Your task to perform on an android device: open app "Nova Launcher" Image 0: 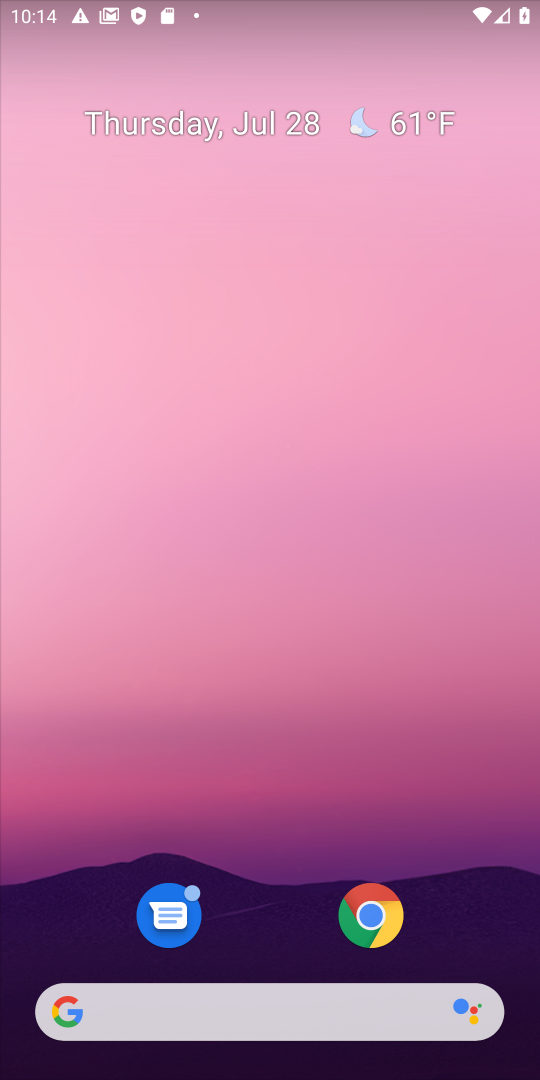
Step 0: press home button
Your task to perform on an android device: open app "Nova Launcher" Image 1: 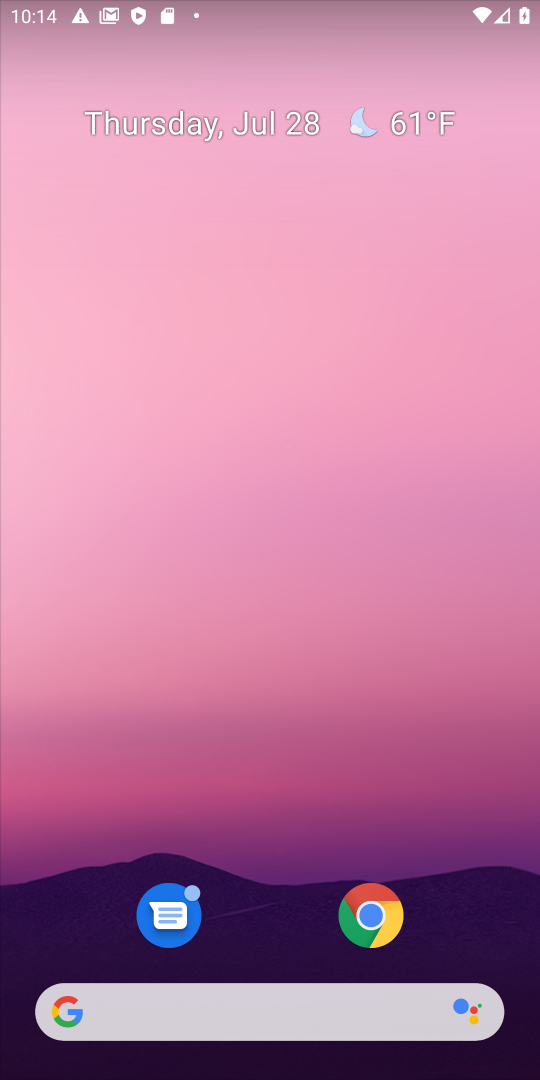
Step 1: drag from (261, 841) to (368, 129)
Your task to perform on an android device: open app "Nova Launcher" Image 2: 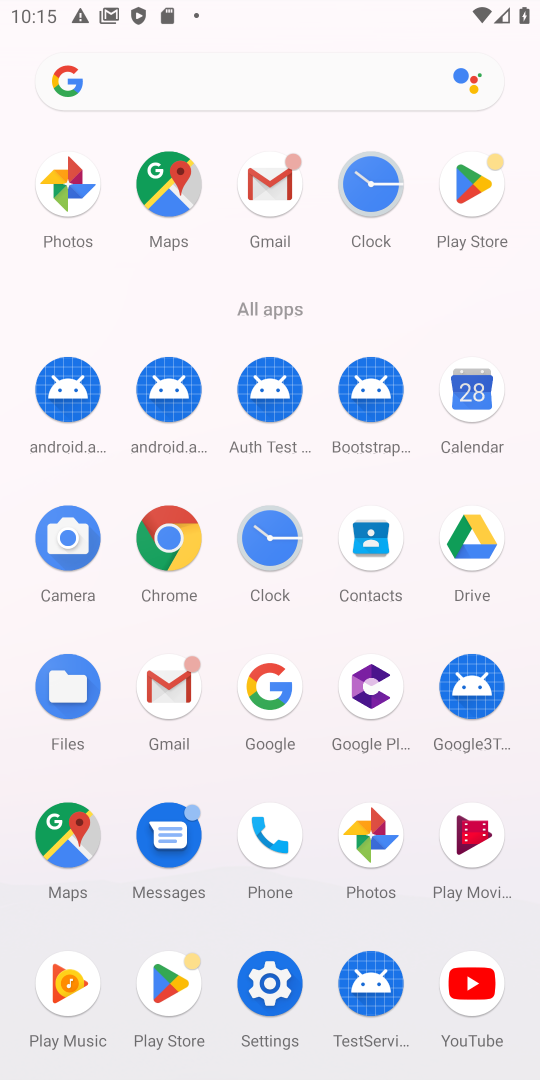
Step 2: click (167, 970)
Your task to perform on an android device: open app "Nova Launcher" Image 3: 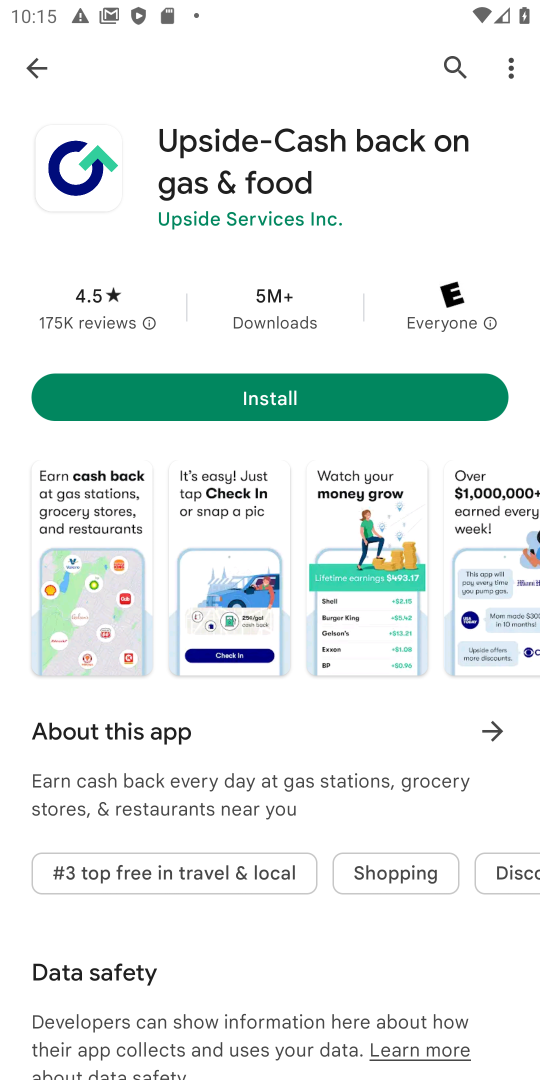
Step 3: click (33, 60)
Your task to perform on an android device: open app "Nova Launcher" Image 4: 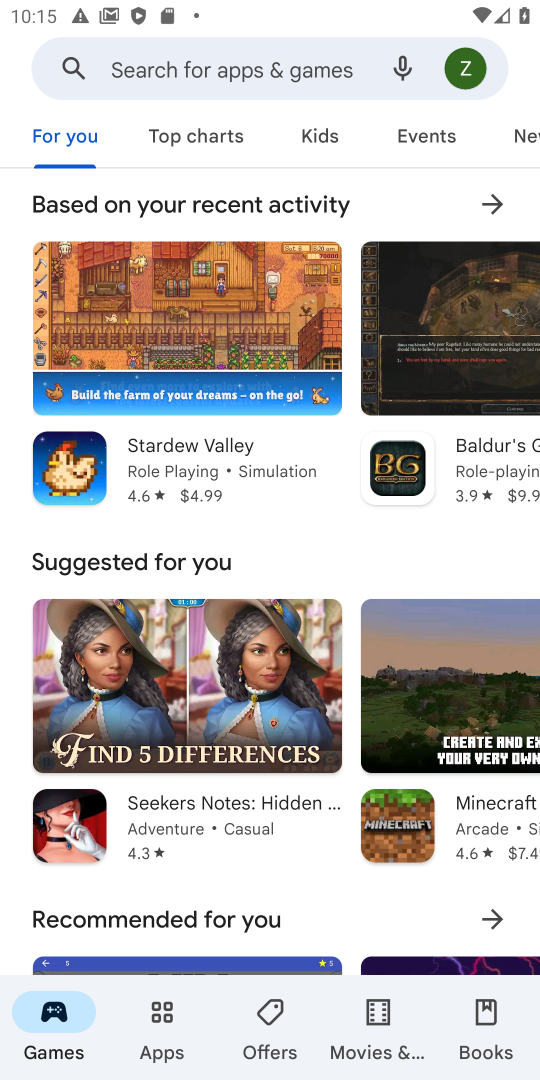
Step 4: click (143, 60)
Your task to perform on an android device: open app "Nova Launcher" Image 5: 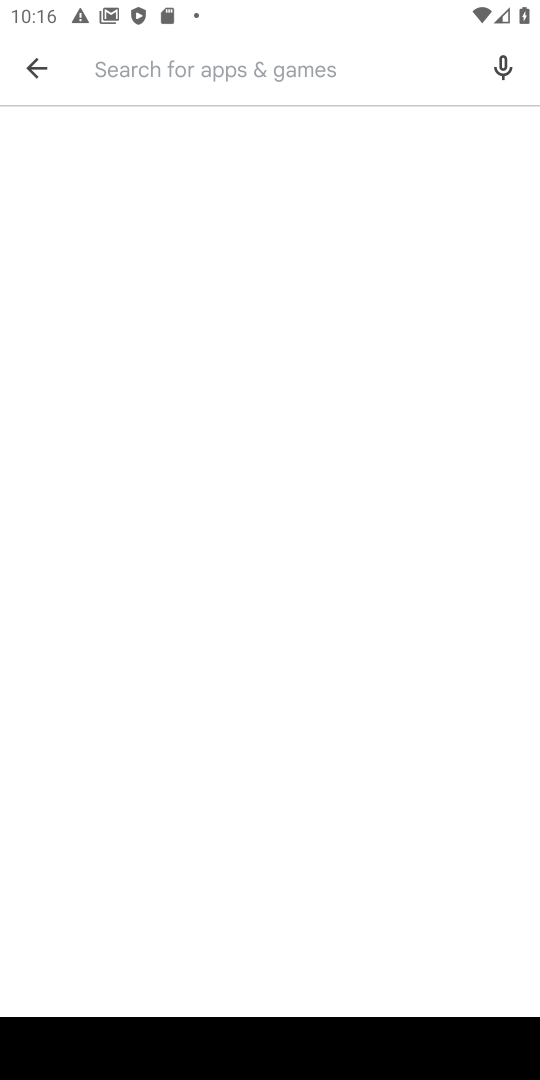
Step 5: type ""Nova Launcher""
Your task to perform on an android device: open app "Nova Launcher" Image 6: 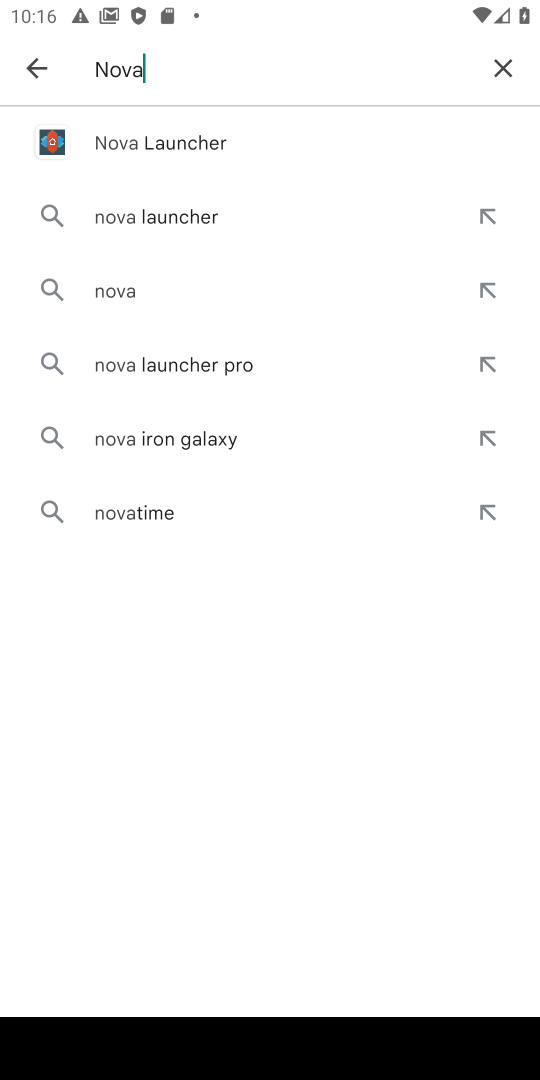
Step 6: click (148, 142)
Your task to perform on an android device: open app "Nova Launcher" Image 7: 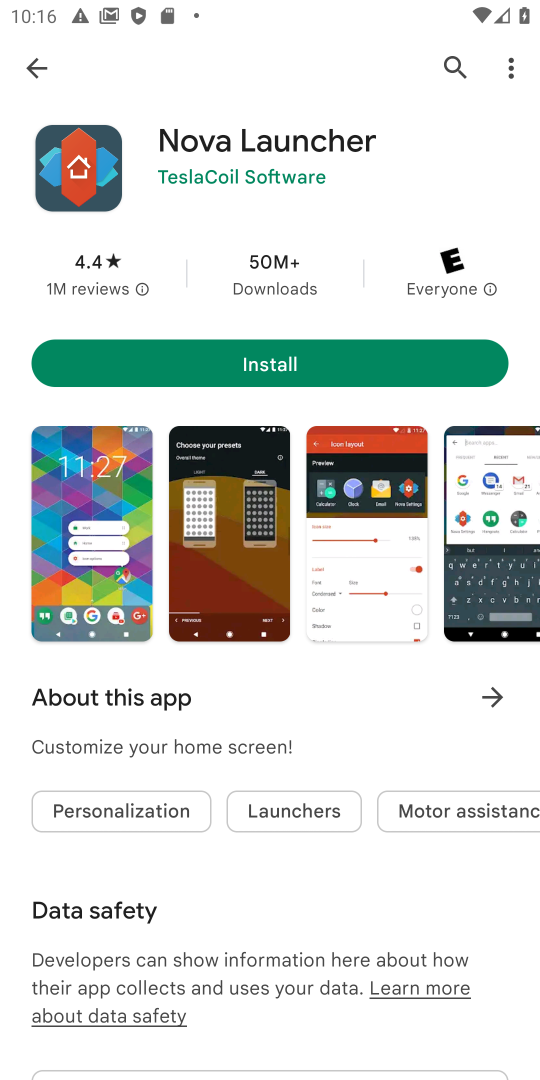
Step 7: task complete